Your task to perform on an android device: Go to Yahoo.com Image 0: 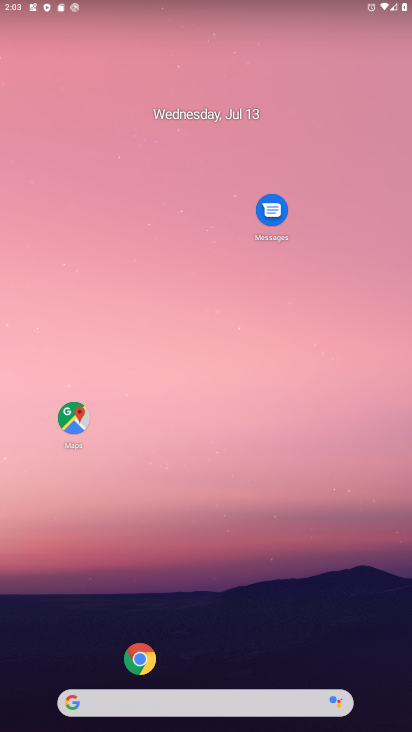
Step 0: click (124, 706)
Your task to perform on an android device: Go to Yahoo.com Image 1: 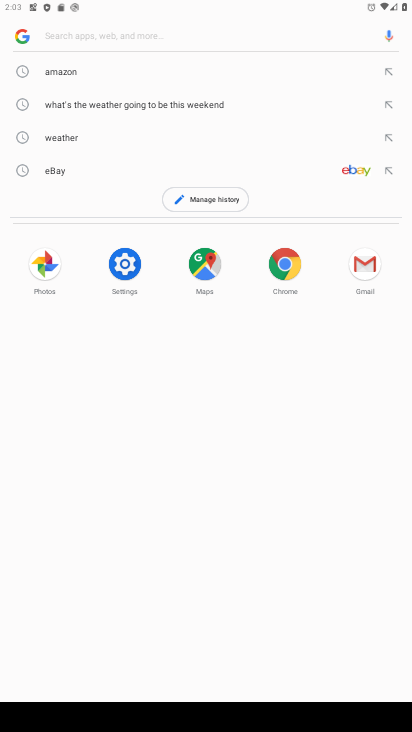
Step 1: type "Yahoo.com"
Your task to perform on an android device: Go to Yahoo.com Image 2: 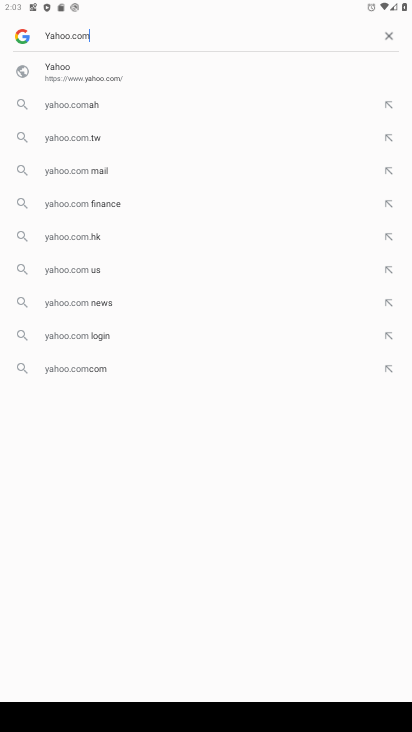
Step 2: type ""
Your task to perform on an android device: Go to Yahoo.com Image 3: 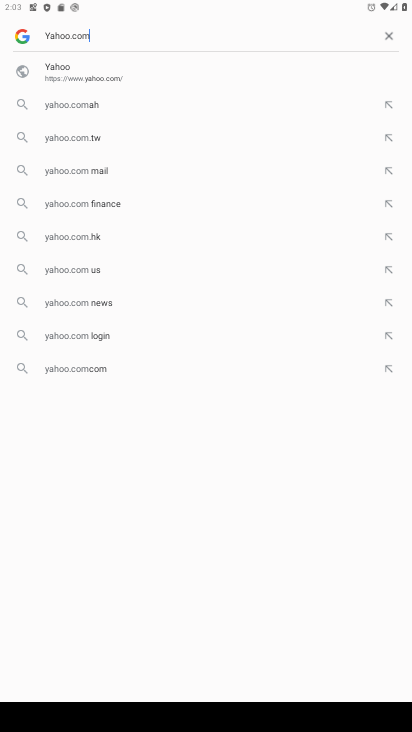
Step 3: type ""
Your task to perform on an android device: Go to Yahoo.com Image 4: 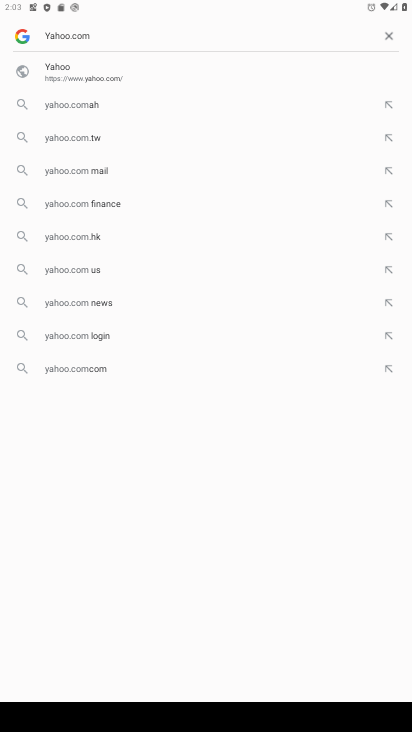
Step 4: type ""
Your task to perform on an android device: Go to Yahoo.com Image 5: 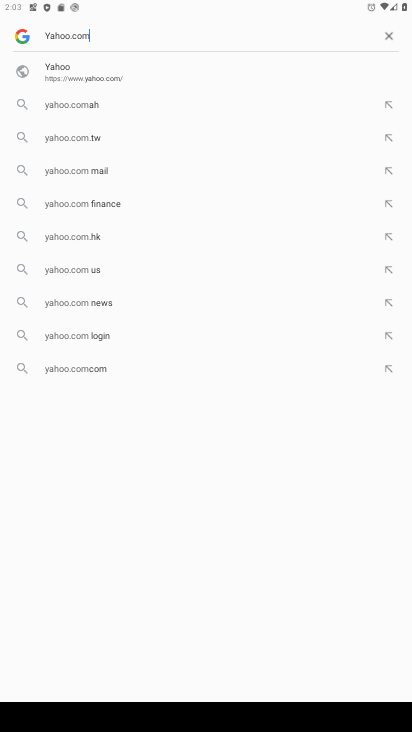
Step 5: task complete